Your task to perform on an android device: Play the last video I watched on Youtube Image 0: 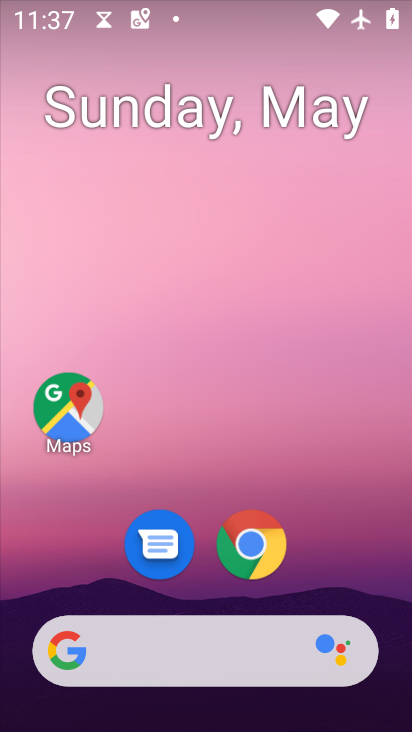
Step 0: drag from (327, 541) to (375, 186)
Your task to perform on an android device: Play the last video I watched on Youtube Image 1: 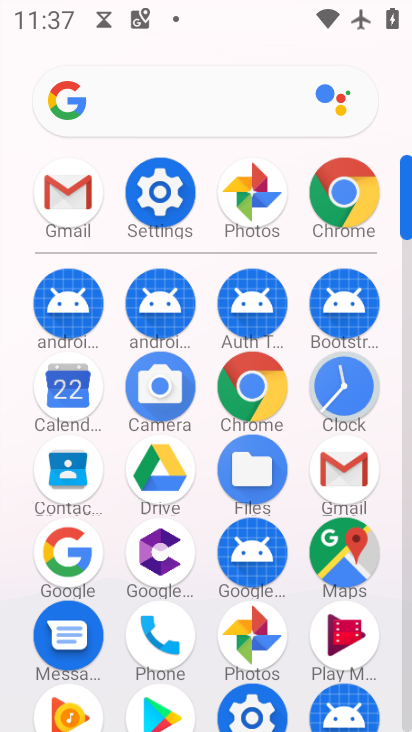
Step 1: drag from (285, 630) to (338, 123)
Your task to perform on an android device: Play the last video I watched on Youtube Image 2: 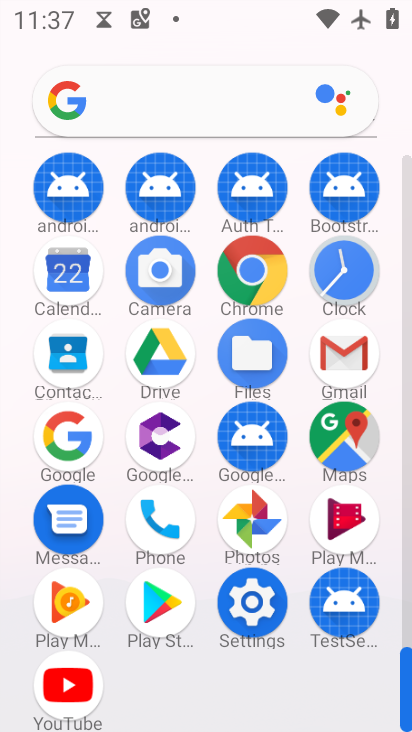
Step 2: click (46, 669)
Your task to perform on an android device: Play the last video I watched on Youtube Image 3: 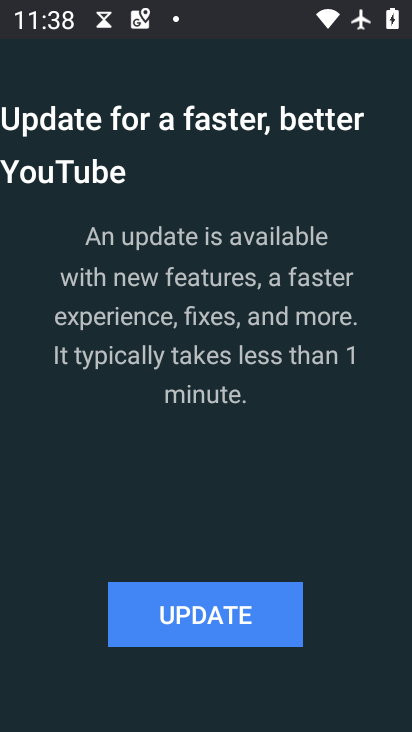
Step 3: task complete